Your task to perform on an android device: Show me the alarms in the clock app Image 0: 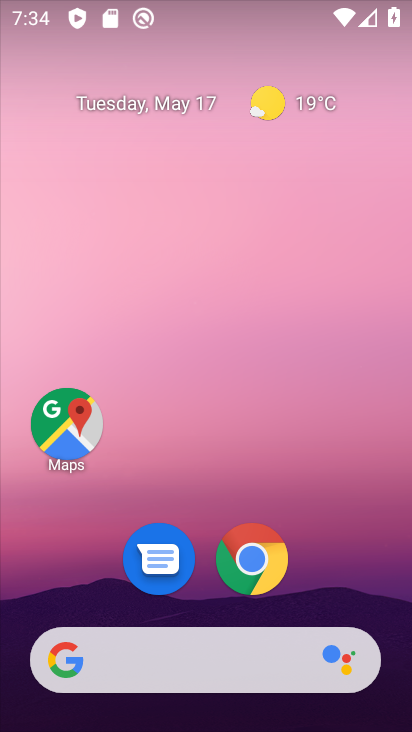
Step 0: drag from (211, 599) to (280, 161)
Your task to perform on an android device: Show me the alarms in the clock app Image 1: 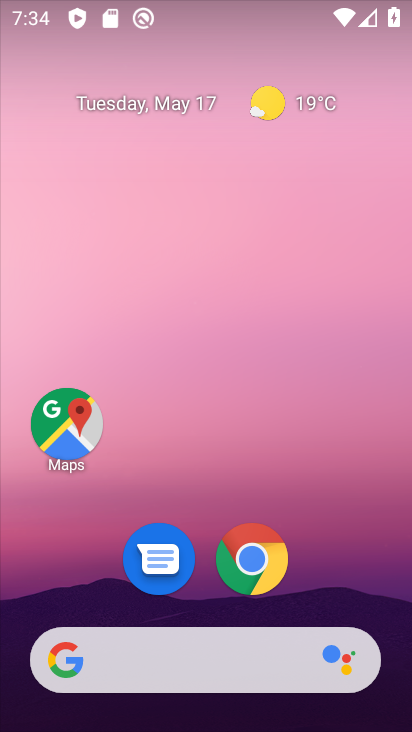
Step 1: drag from (189, 613) to (290, 22)
Your task to perform on an android device: Show me the alarms in the clock app Image 2: 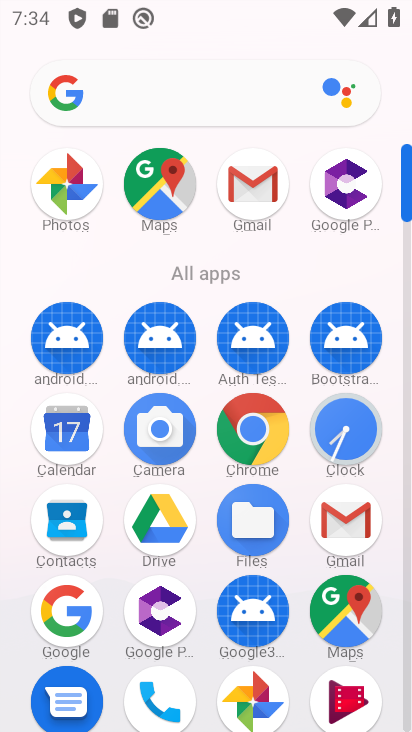
Step 2: click (342, 436)
Your task to perform on an android device: Show me the alarms in the clock app Image 3: 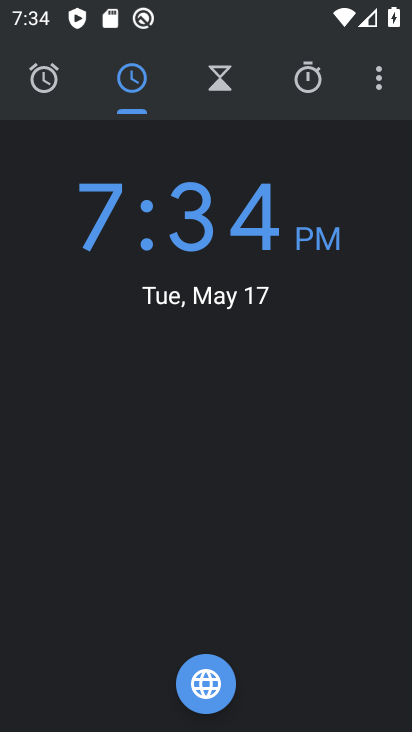
Step 3: click (34, 94)
Your task to perform on an android device: Show me the alarms in the clock app Image 4: 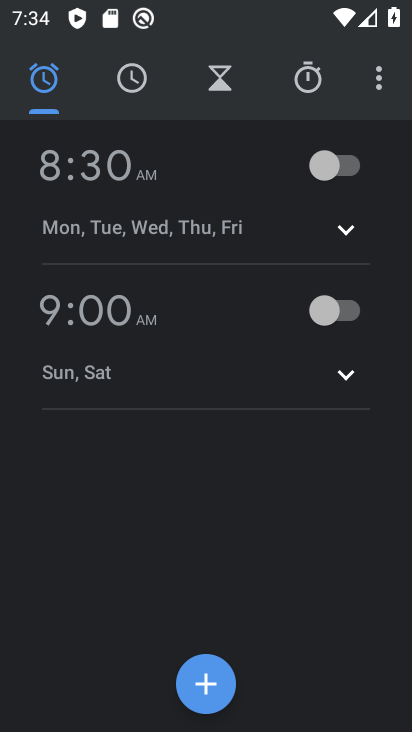
Step 4: task complete